Your task to perform on an android device: see sites visited before in the chrome app Image 0: 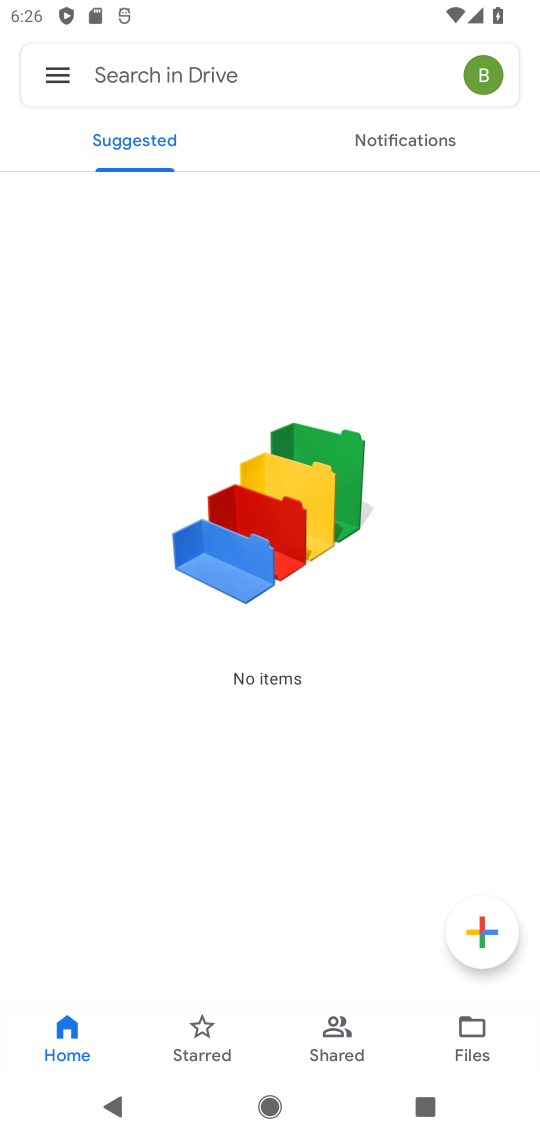
Step 0: press home button
Your task to perform on an android device: see sites visited before in the chrome app Image 1: 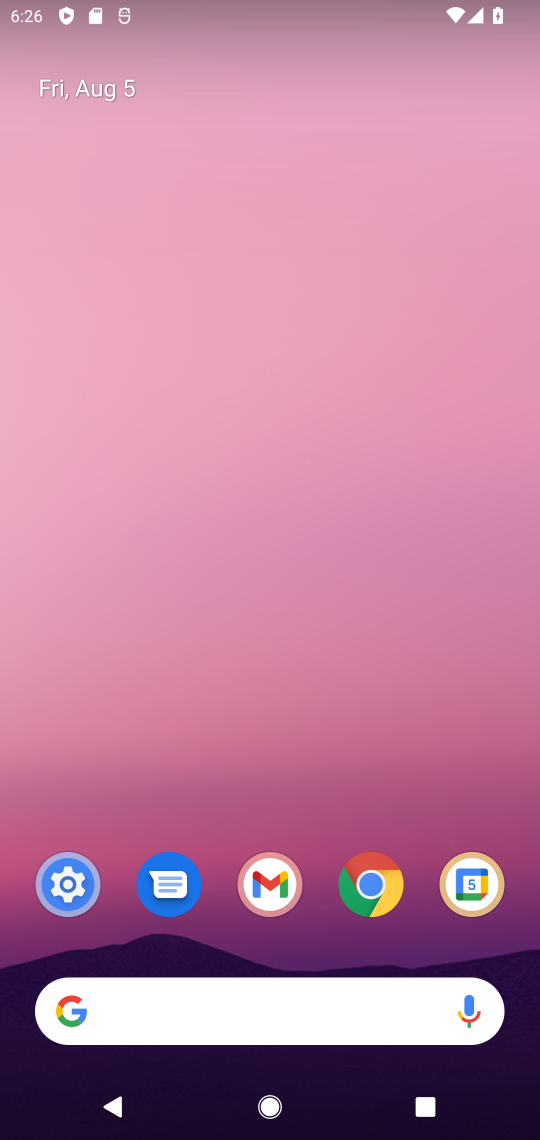
Step 1: click (368, 883)
Your task to perform on an android device: see sites visited before in the chrome app Image 2: 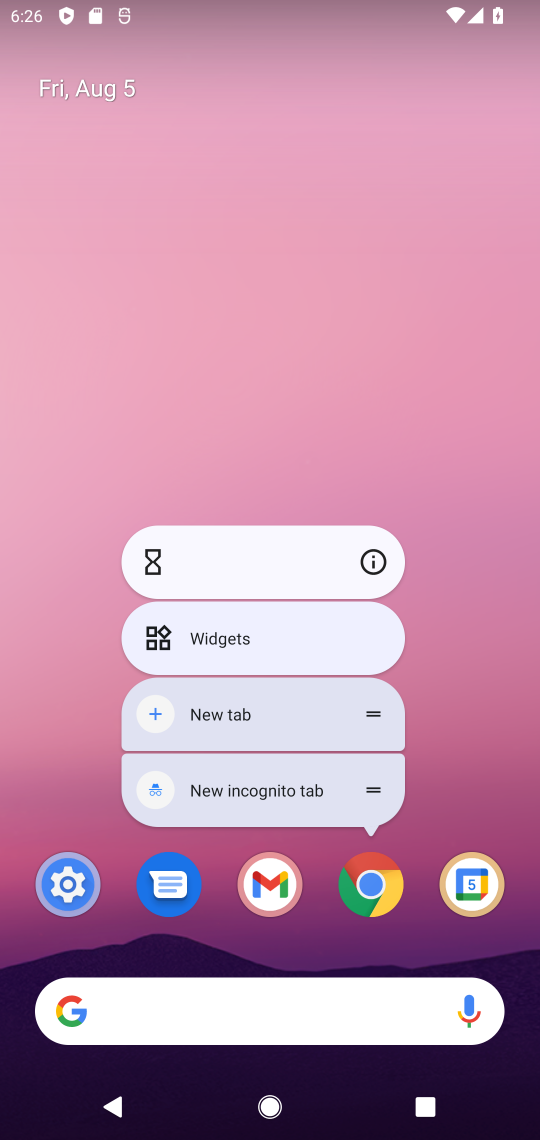
Step 2: click (371, 872)
Your task to perform on an android device: see sites visited before in the chrome app Image 3: 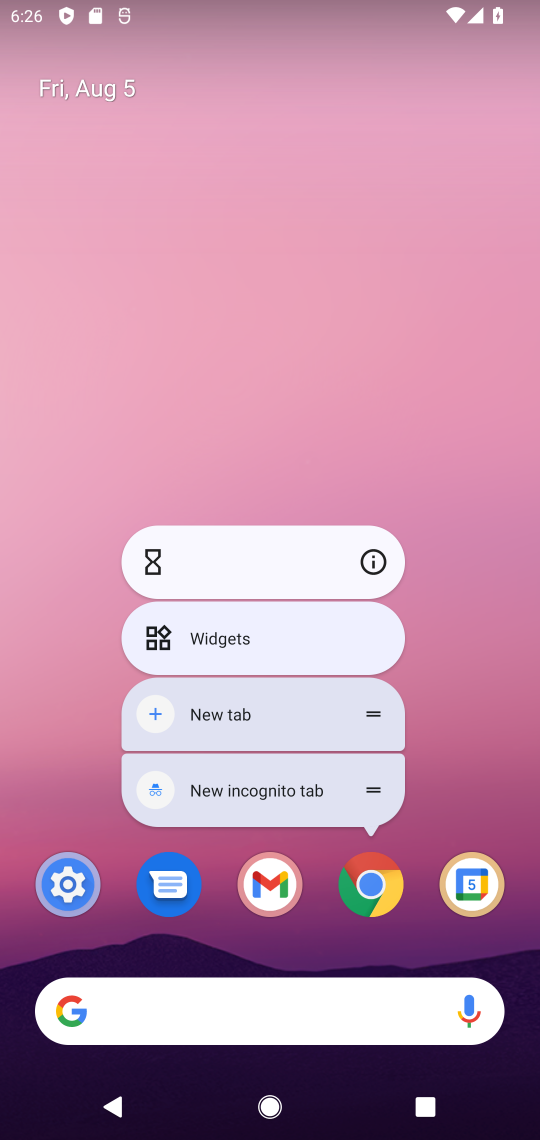
Step 3: click (447, 829)
Your task to perform on an android device: see sites visited before in the chrome app Image 4: 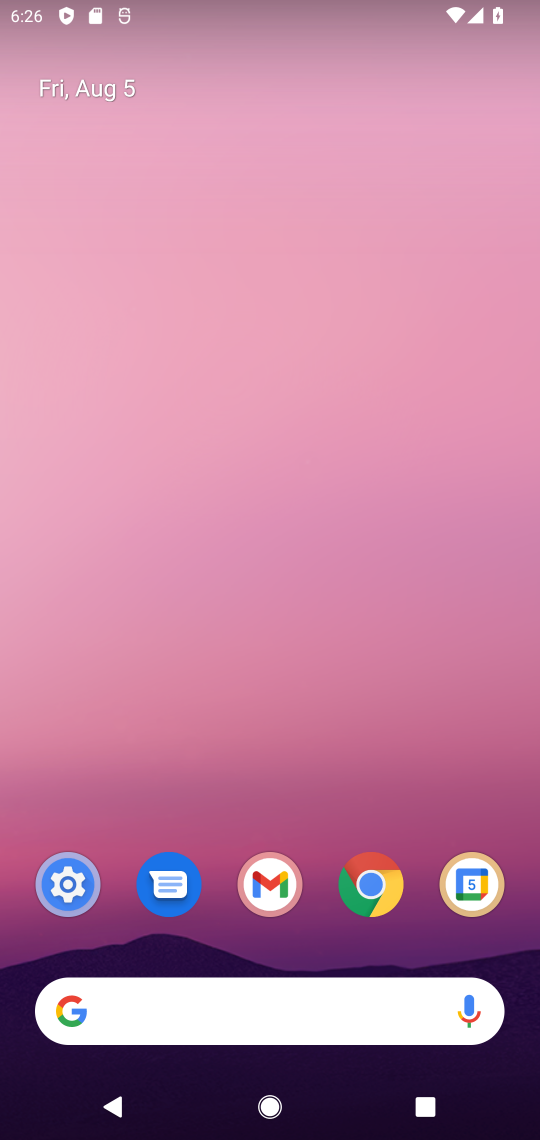
Step 4: drag from (469, 788) to (396, 221)
Your task to perform on an android device: see sites visited before in the chrome app Image 5: 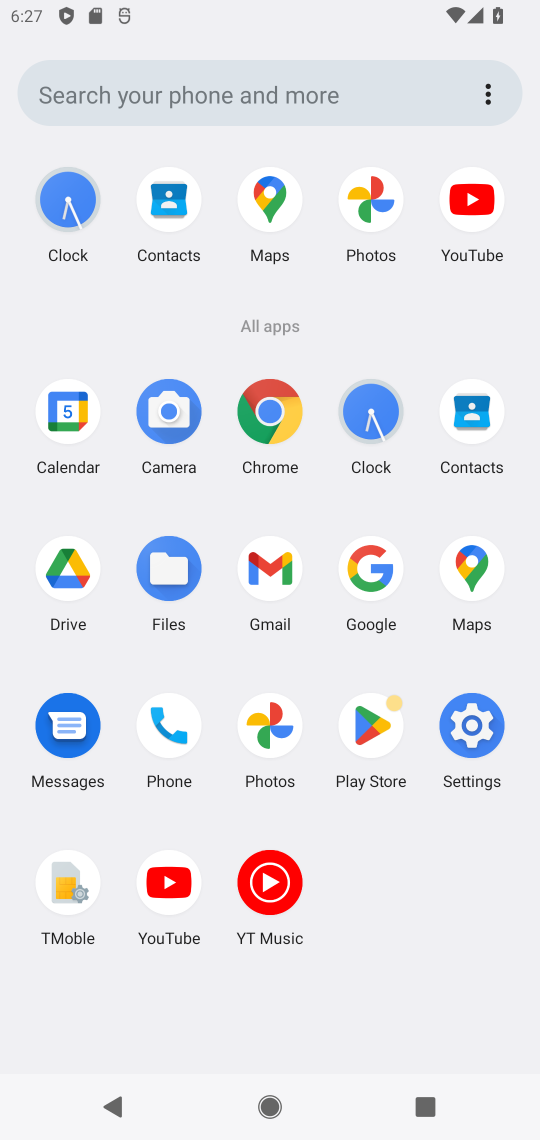
Step 5: click (262, 407)
Your task to perform on an android device: see sites visited before in the chrome app Image 6: 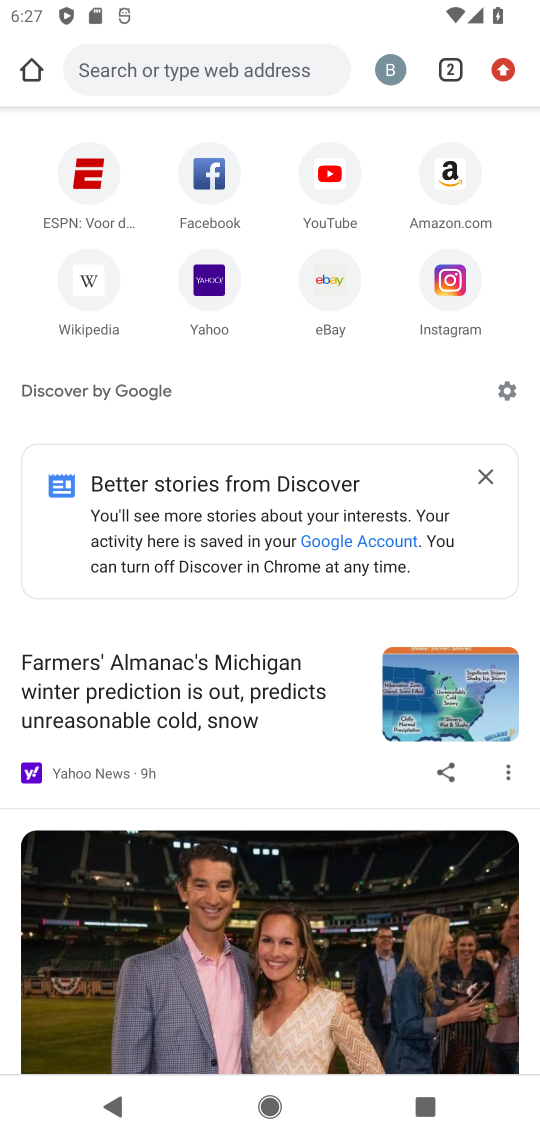
Step 6: click (510, 65)
Your task to perform on an android device: see sites visited before in the chrome app Image 7: 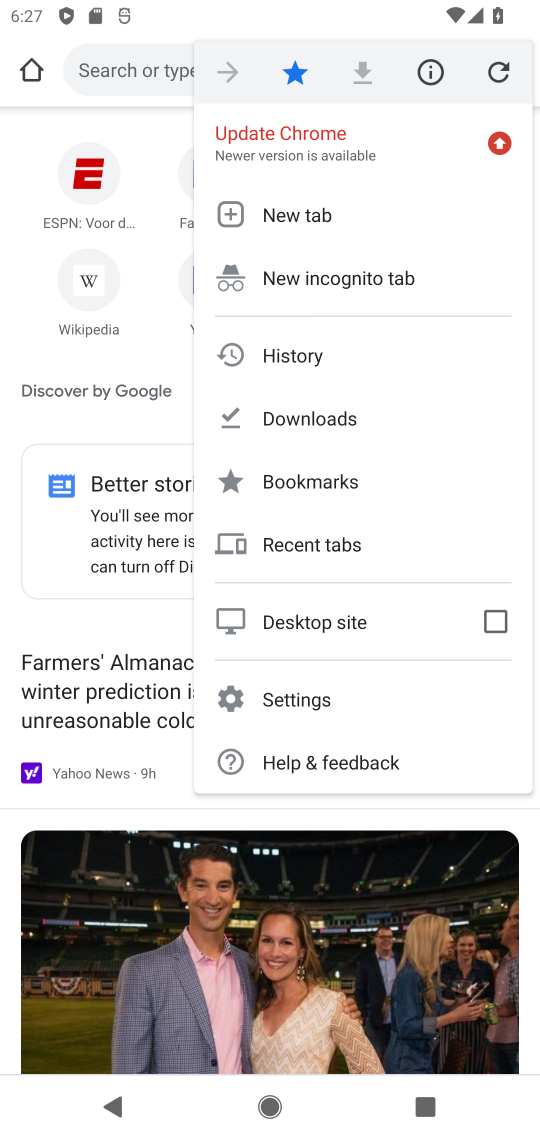
Step 7: click (313, 344)
Your task to perform on an android device: see sites visited before in the chrome app Image 8: 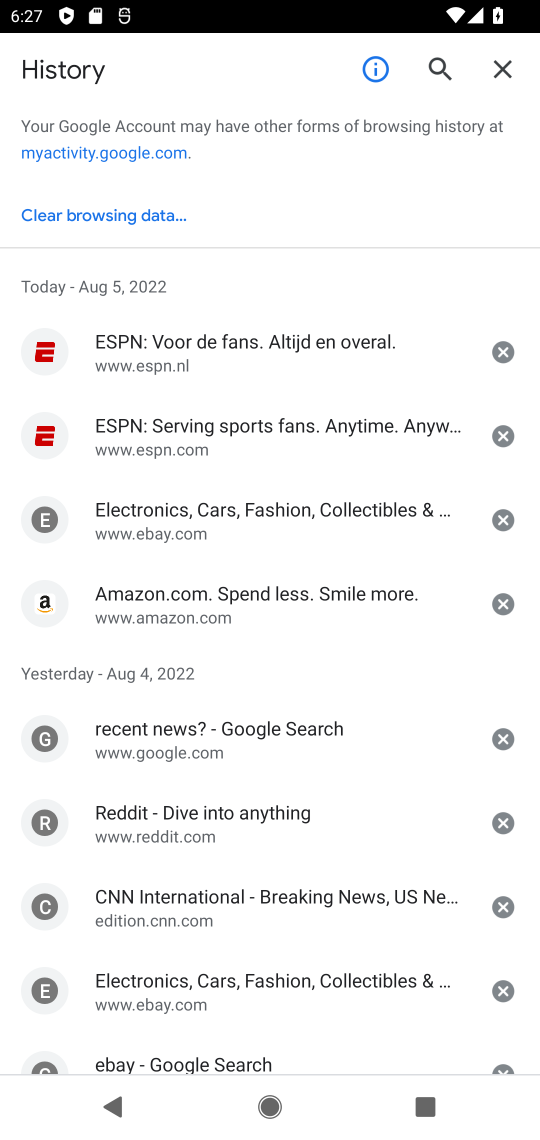
Step 8: task complete